Your task to perform on an android device: Open Google Chrome and click the shortcut for Amazon.com Image 0: 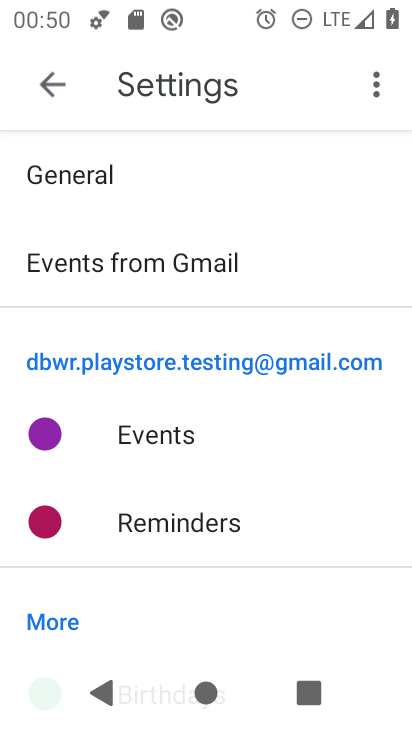
Step 0: press home button
Your task to perform on an android device: Open Google Chrome and click the shortcut for Amazon.com Image 1: 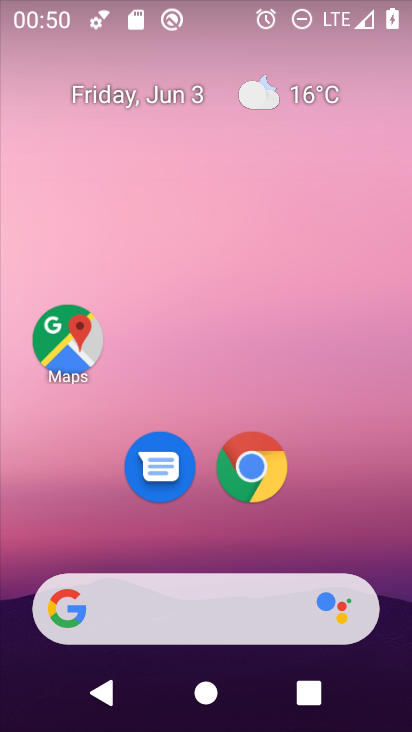
Step 1: click (253, 470)
Your task to perform on an android device: Open Google Chrome and click the shortcut for Amazon.com Image 2: 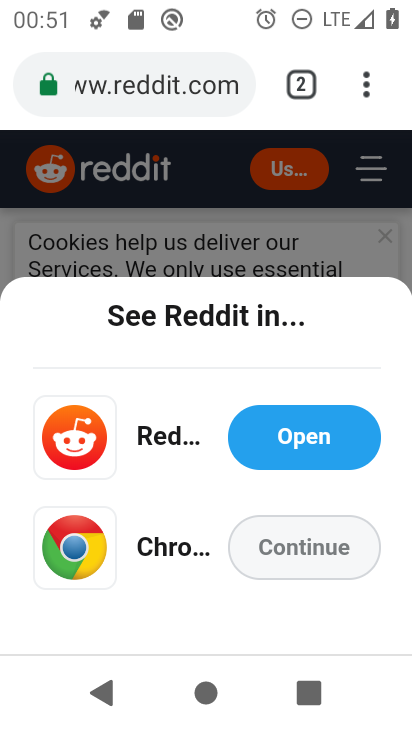
Step 2: click (368, 99)
Your task to perform on an android device: Open Google Chrome and click the shortcut for Amazon.com Image 3: 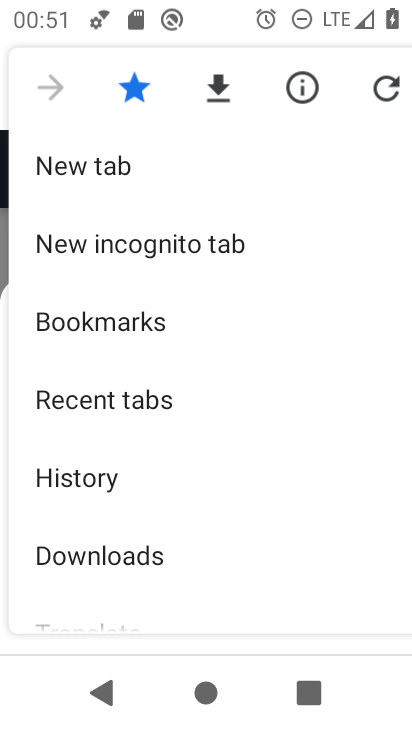
Step 3: click (91, 166)
Your task to perform on an android device: Open Google Chrome and click the shortcut for Amazon.com Image 4: 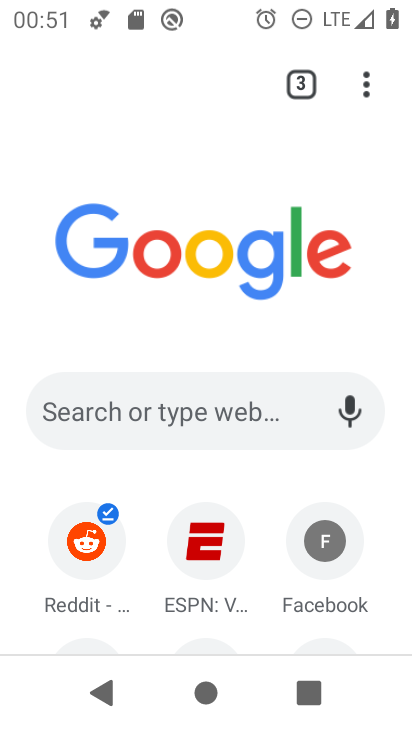
Step 4: drag from (148, 327) to (140, 36)
Your task to perform on an android device: Open Google Chrome and click the shortcut for Amazon.com Image 5: 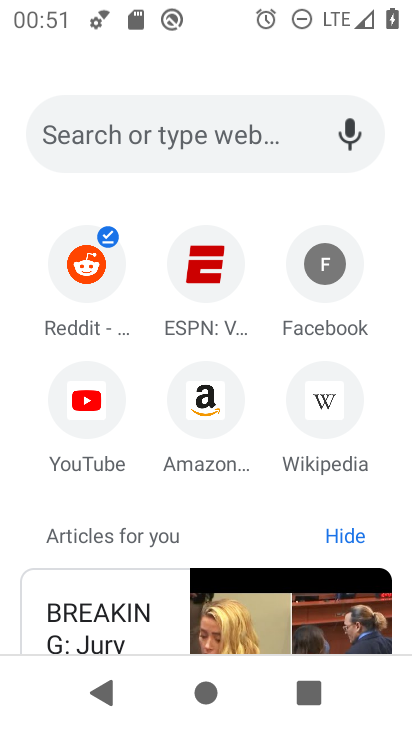
Step 5: click (206, 397)
Your task to perform on an android device: Open Google Chrome and click the shortcut for Amazon.com Image 6: 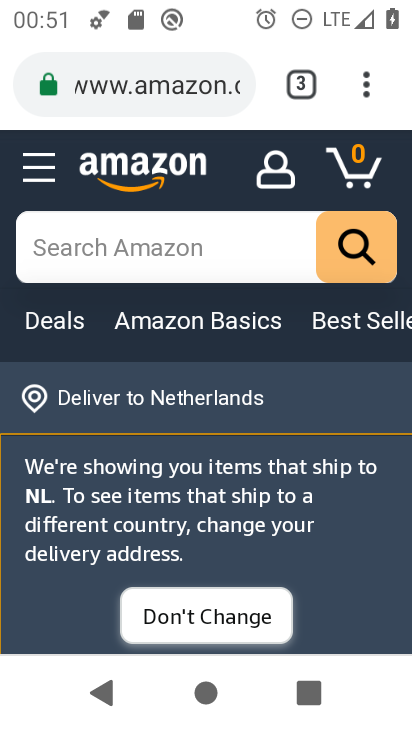
Step 6: task complete